Your task to perform on an android device: clear history in the chrome app Image 0: 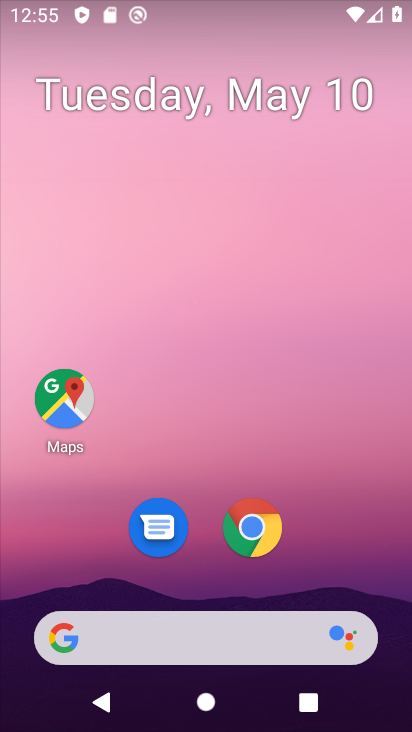
Step 0: click (248, 533)
Your task to perform on an android device: clear history in the chrome app Image 1: 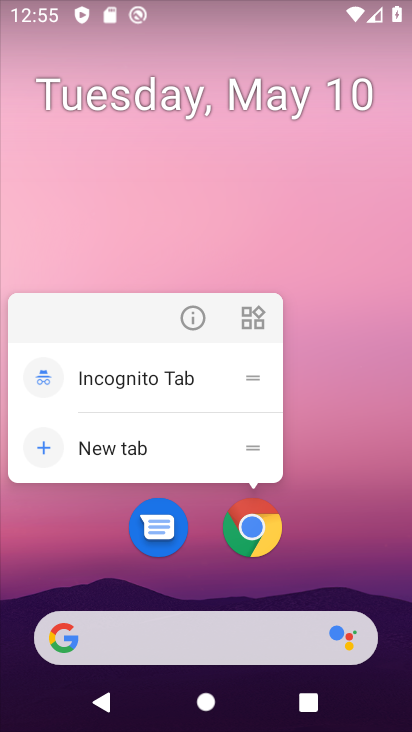
Step 1: click (256, 529)
Your task to perform on an android device: clear history in the chrome app Image 2: 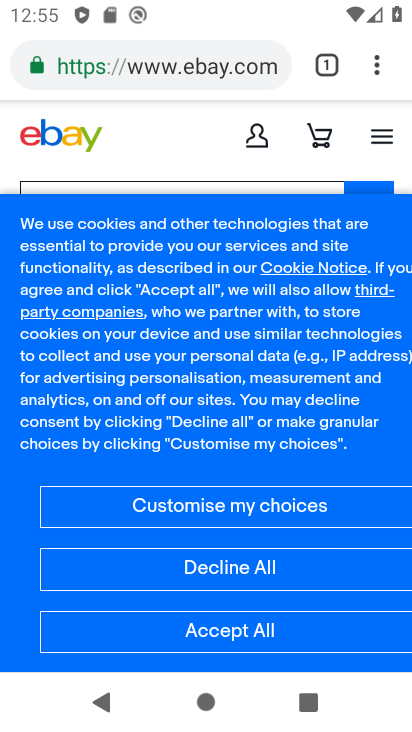
Step 2: drag from (380, 65) to (182, 575)
Your task to perform on an android device: clear history in the chrome app Image 3: 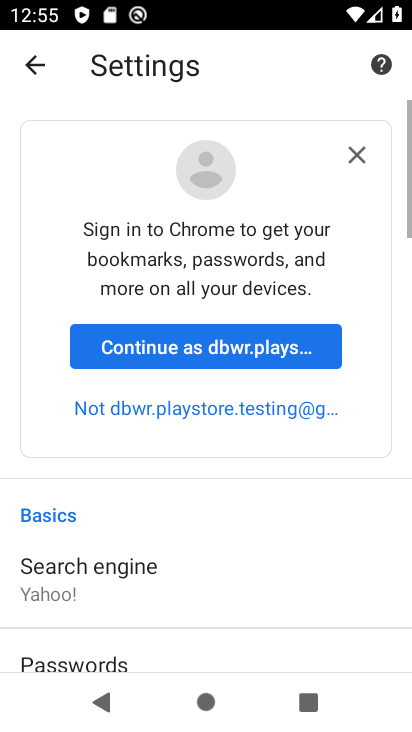
Step 3: drag from (193, 566) to (203, 266)
Your task to perform on an android device: clear history in the chrome app Image 4: 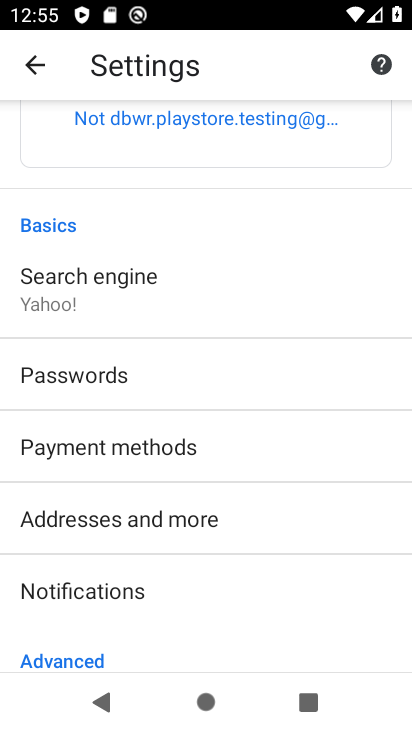
Step 4: drag from (200, 575) to (200, 306)
Your task to perform on an android device: clear history in the chrome app Image 5: 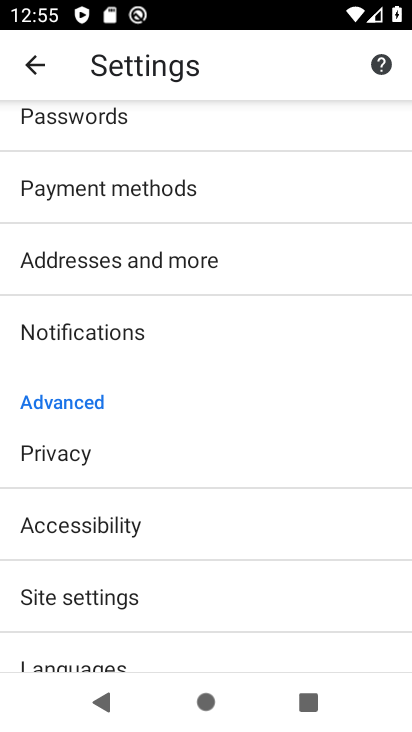
Step 5: click (65, 456)
Your task to perform on an android device: clear history in the chrome app Image 6: 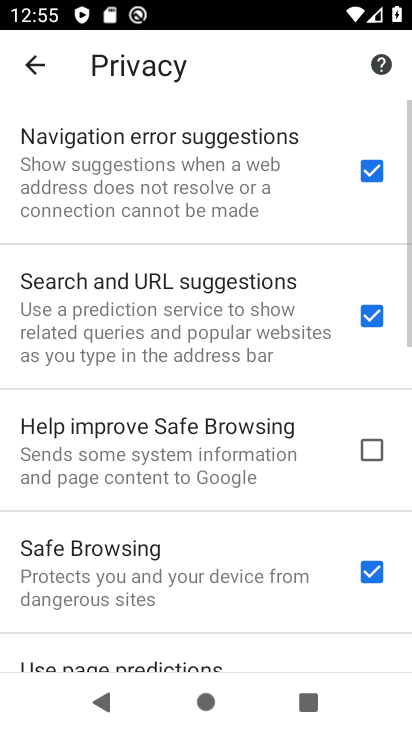
Step 6: drag from (179, 597) to (170, 168)
Your task to perform on an android device: clear history in the chrome app Image 7: 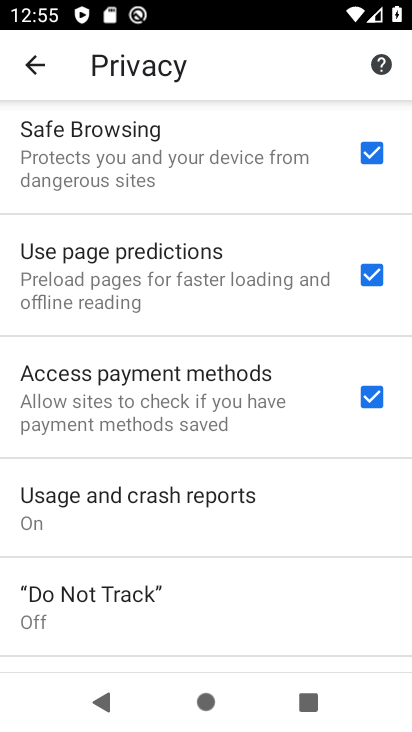
Step 7: drag from (136, 590) to (129, 188)
Your task to perform on an android device: clear history in the chrome app Image 8: 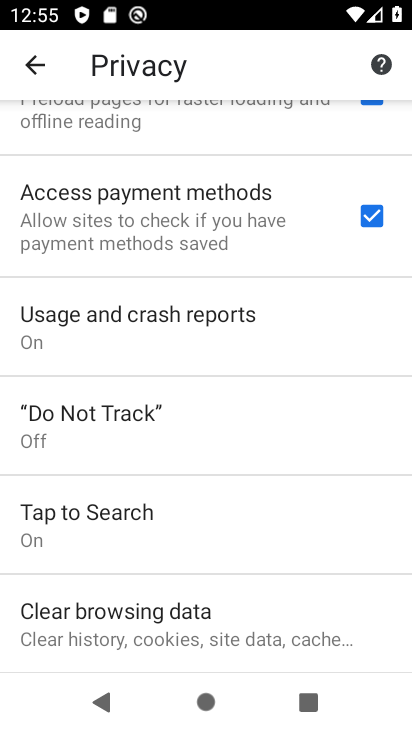
Step 8: click (173, 626)
Your task to perform on an android device: clear history in the chrome app Image 9: 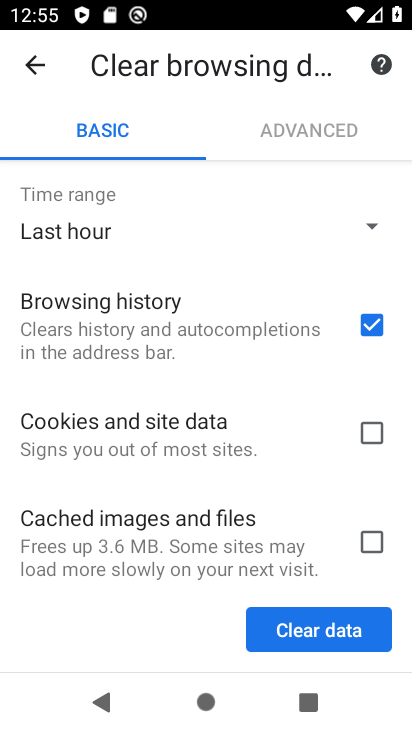
Step 9: click (295, 635)
Your task to perform on an android device: clear history in the chrome app Image 10: 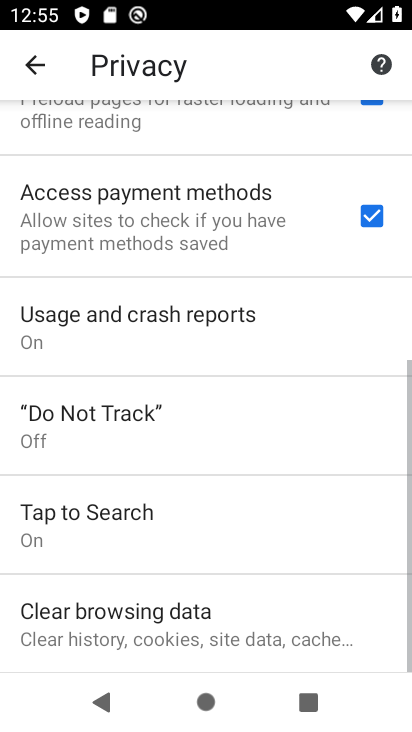
Step 10: task complete